Your task to perform on an android device: see creations saved in the google photos Image 0: 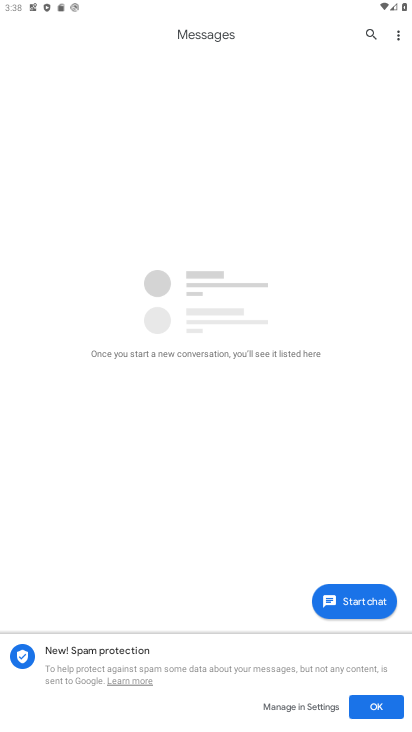
Step 0: press home button
Your task to perform on an android device: see creations saved in the google photos Image 1: 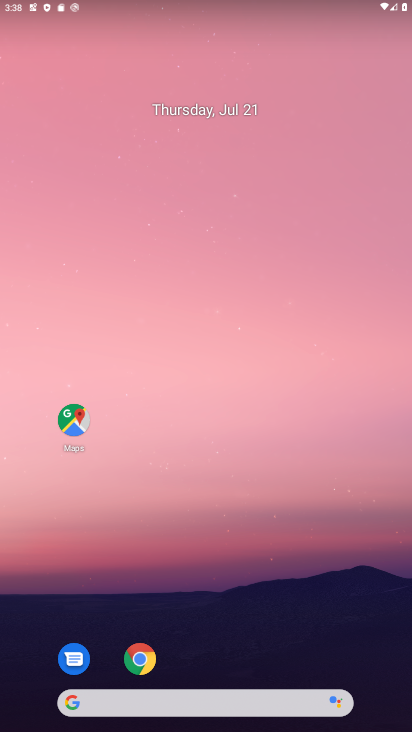
Step 1: drag from (259, 551) to (278, 70)
Your task to perform on an android device: see creations saved in the google photos Image 2: 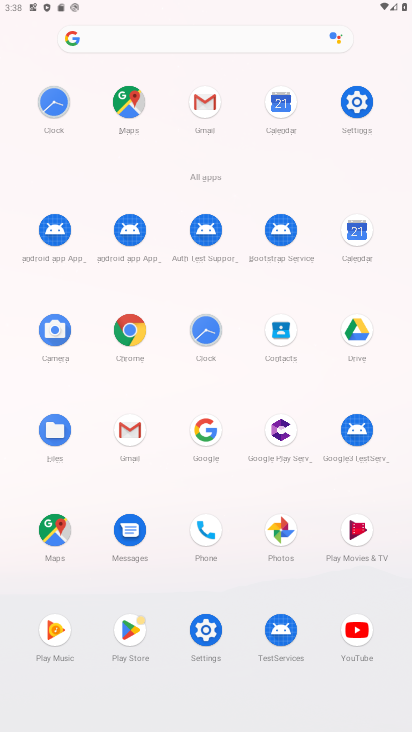
Step 2: click (281, 527)
Your task to perform on an android device: see creations saved in the google photos Image 3: 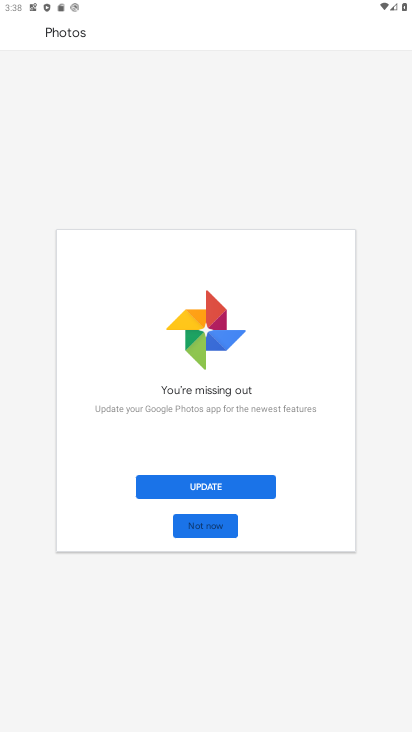
Step 3: click (229, 493)
Your task to perform on an android device: see creations saved in the google photos Image 4: 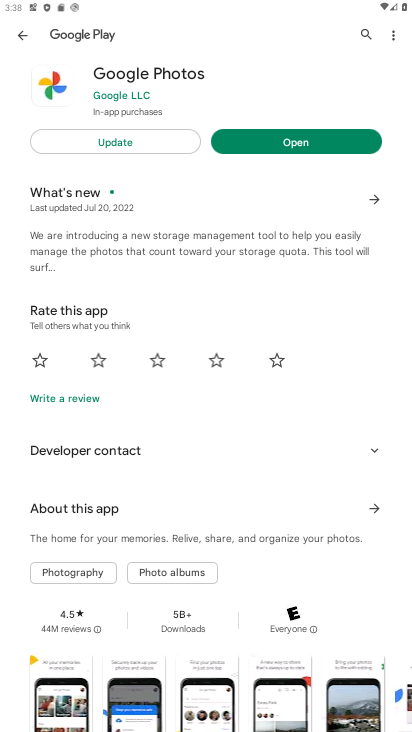
Step 4: click (127, 144)
Your task to perform on an android device: see creations saved in the google photos Image 5: 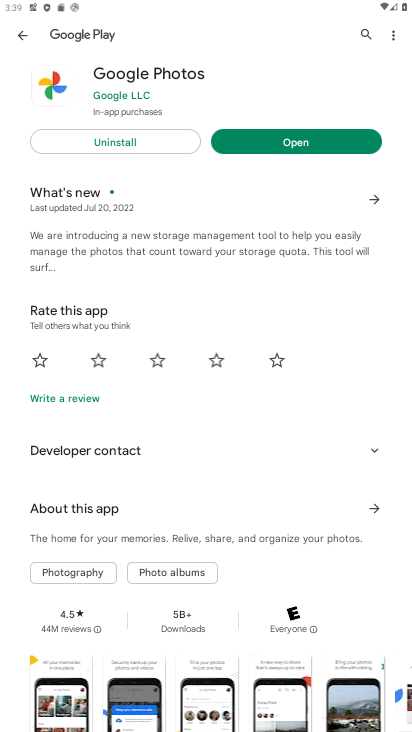
Step 5: click (273, 141)
Your task to perform on an android device: see creations saved in the google photos Image 6: 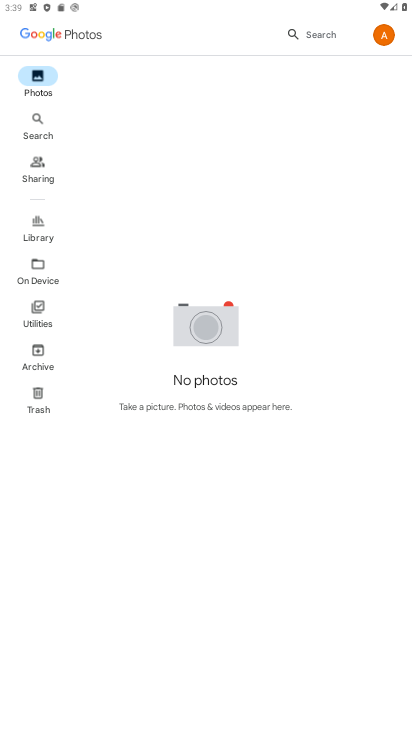
Step 6: click (39, 115)
Your task to perform on an android device: see creations saved in the google photos Image 7: 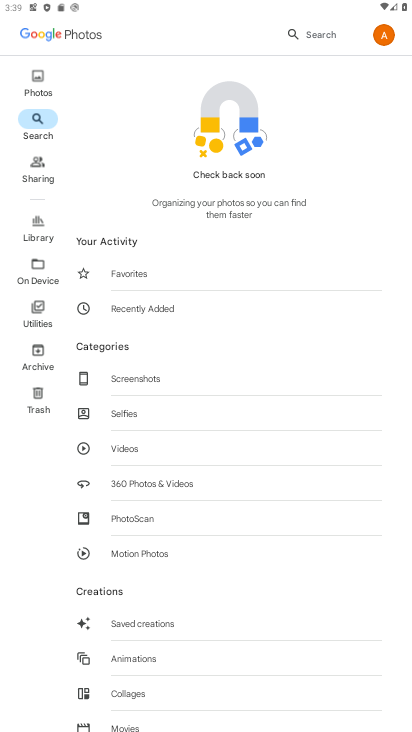
Step 7: drag from (242, 506) to (198, 592)
Your task to perform on an android device: see creations saved in the google photos Image 8: 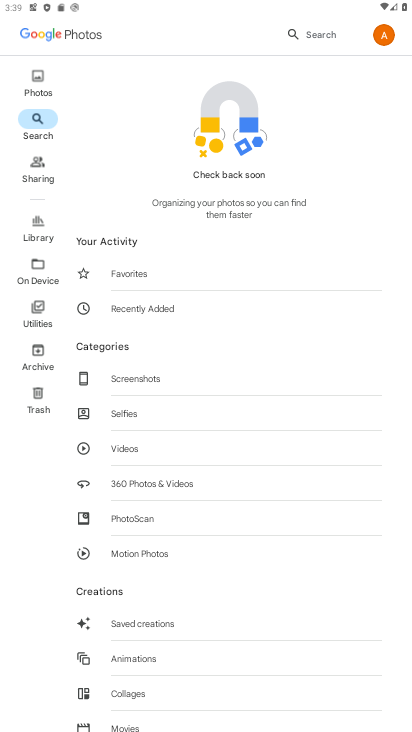
Step 8: click (109, 588)
Your task to perform on an android device: see creations saved in the google photos Image 9: 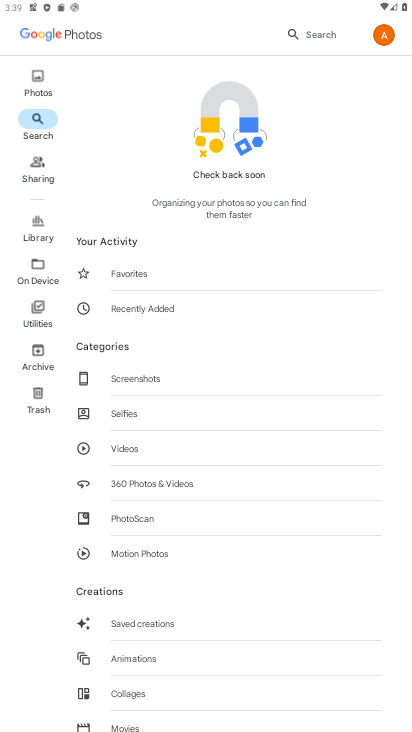
Step 9: drag from (161, 651) to (218, 342)
Your task to perform on an android device: see creations saved in the google photos Image 10: 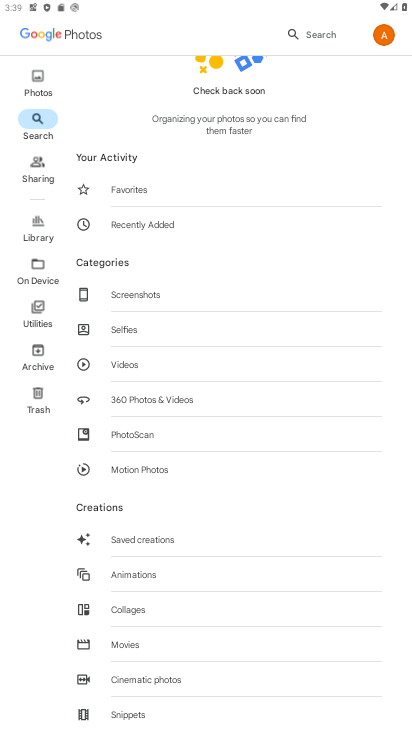
Step 10: click (140, 538)
Your task to perform on an android device: see creations saved in the google photos Image 11: 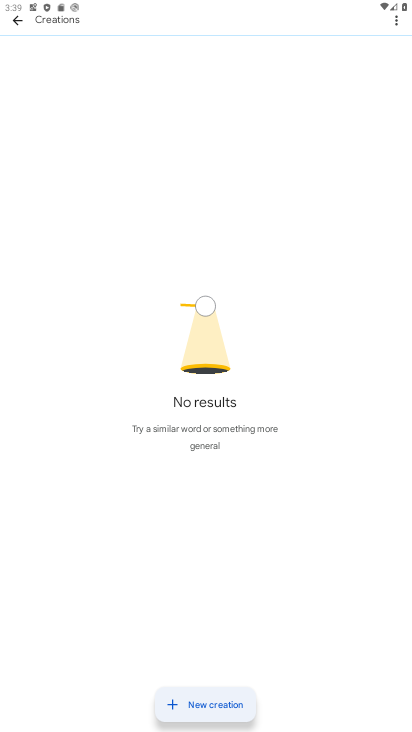
Step 11: task complete